Your task to perform on an android device: Open calendar and show me the third week of next month Image 0: 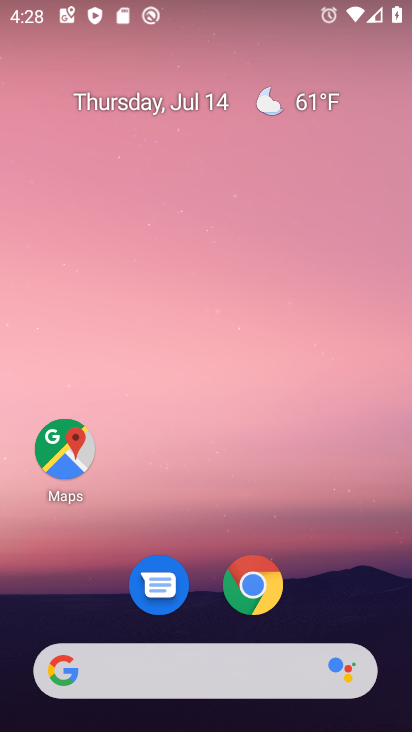
Step 0: drag from (201, 498) to (242, 23)
Your task to perform on an android device: Open calendar and show me the third week of next month Image 1: 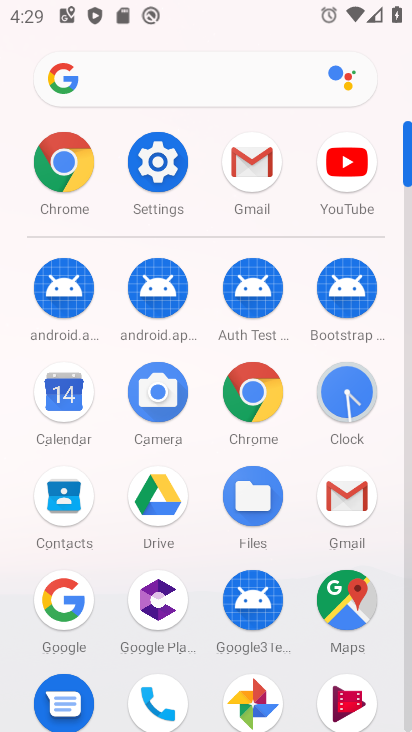
Step 1: click (74, 384)
Your task to perform on an android device: Open calendar and show me the third week of next month Image 2: 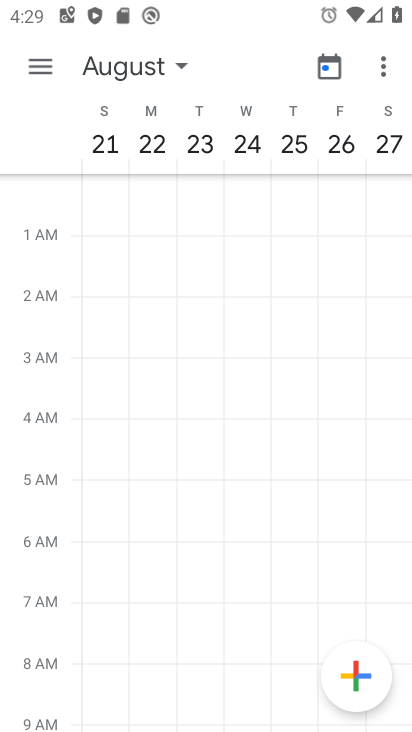
Step 2: task complete